Your task to perform on an android device: turn on the 24-hour format for clock Image 0: 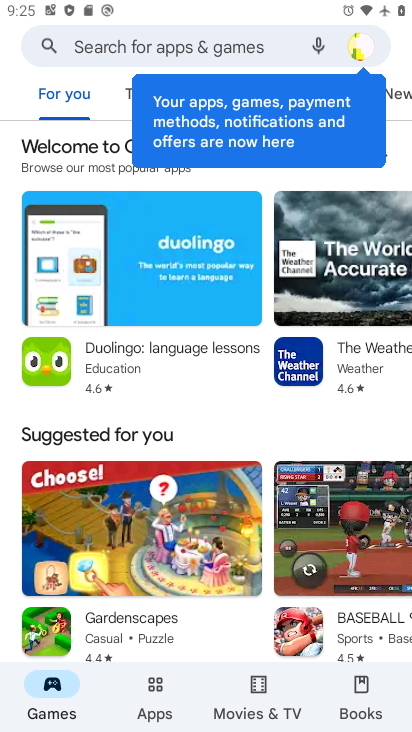
Step 0: press home button
Your task to perform on an android device: turn on the 24-hour format for clock Image 1: 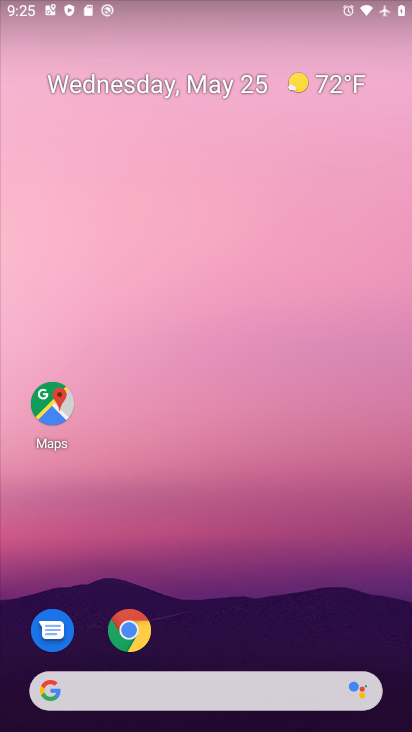
Step 1: drag from (251, 640) to (281, 307)
Your task to perform on an android device: turn on the 24-hour format for clock Image 2: 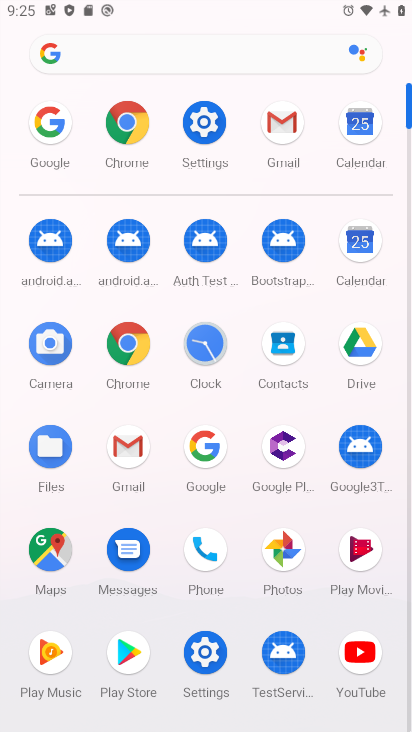
Step 2: click (197, 346)
Your task to perform on an android device: turn on the 24-hour format for clock Image 3: 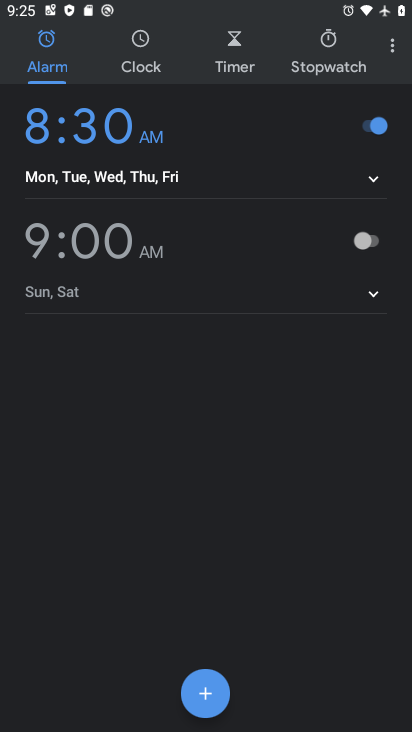
Step 3: click (399, 46)
Your task to perform on an android device: turn on the 24-hour format for clock Image 4: 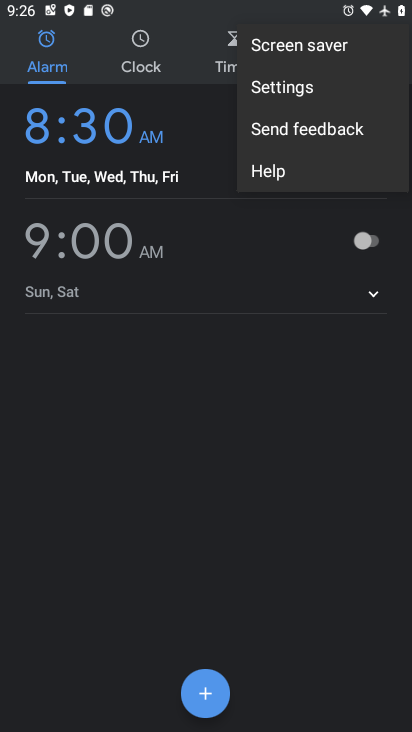
Step 4: click (322, 79)
Your task to perform on an android device: turn on the 24-hour format for clock Image 5: 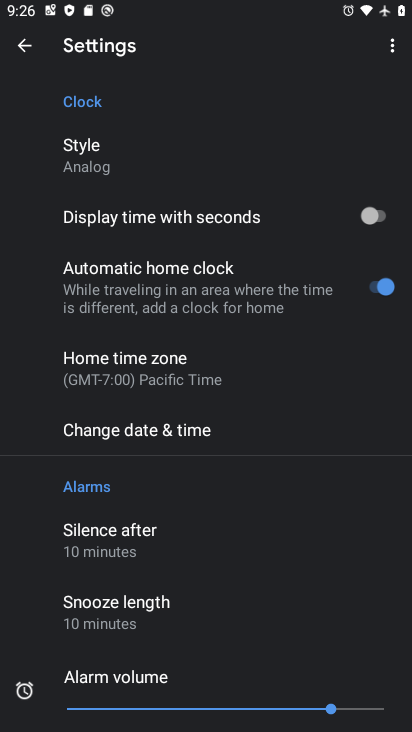
Step 5: click (185, 429)
Your task to perform on an android device: turn on the 24-hour format for clock Image 6: 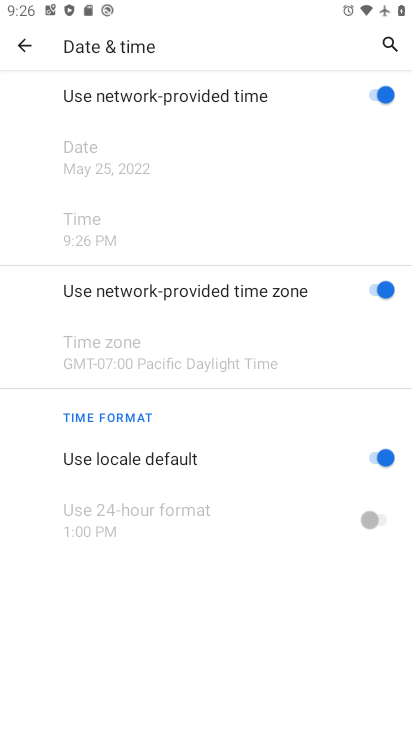
Step 6: click (381, 452)
Your task to perform on an android device: turn on the 24-hour format for clock Image 7: 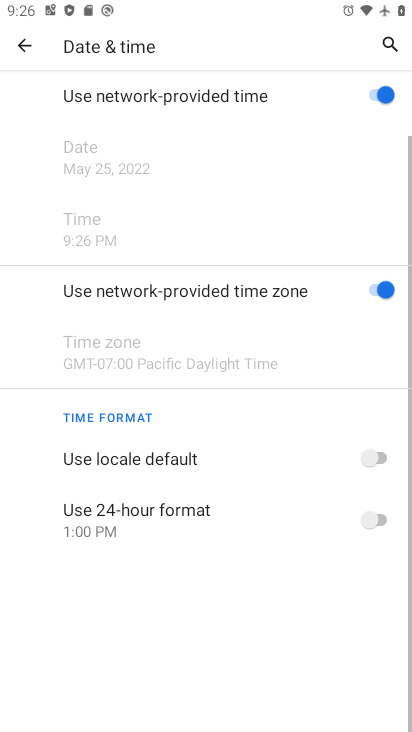
Step 7: click (388, 518)
Your task to perform on an android device: turn on the 24-hour format for clock Image 8: 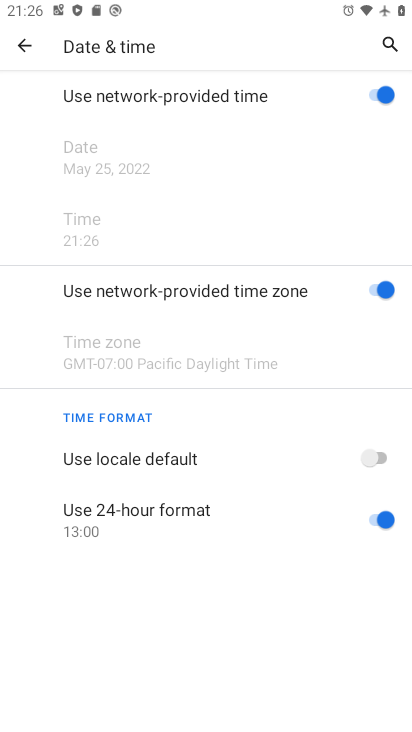
Step 8: task complete